Your task to perform on an android device: set the stopwatch Image 0: 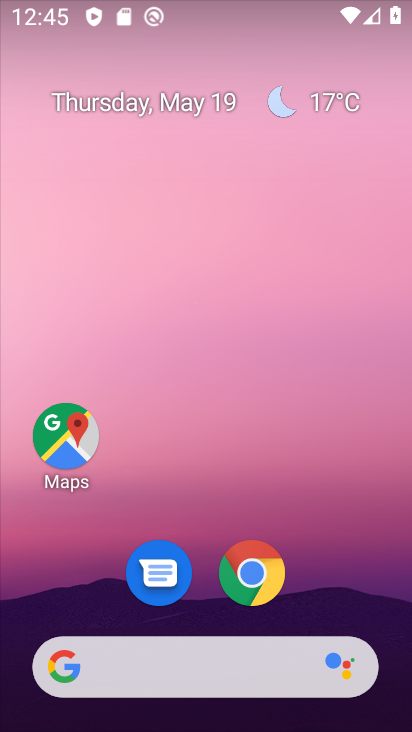
Step 0: drag from (185, 600) to (257, 37)
Your task to perform on an android device: set the stopwatch Image 1: 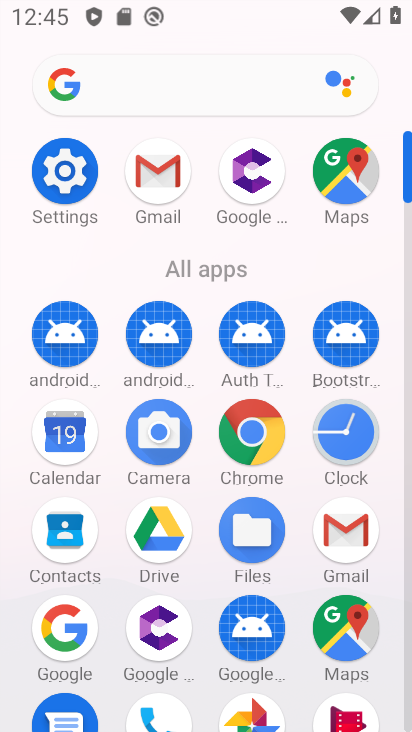
Step 1: click (335, 438)
Your task to perform on an android device: set the stopwatch Image 2: 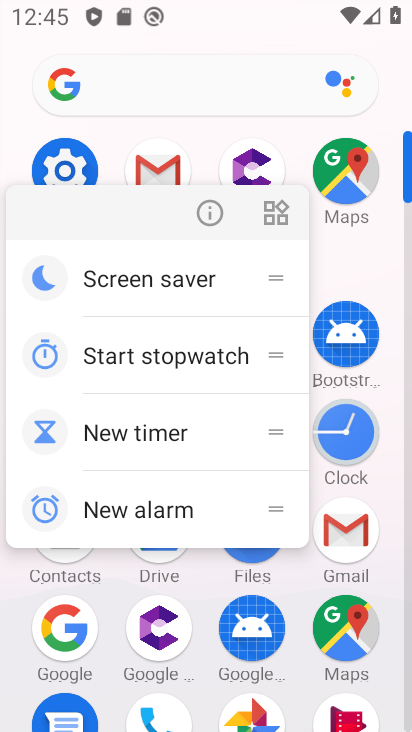
Step 2: click (356, 428)
Your task to perform on an android device: set the stopwatch Image 3: 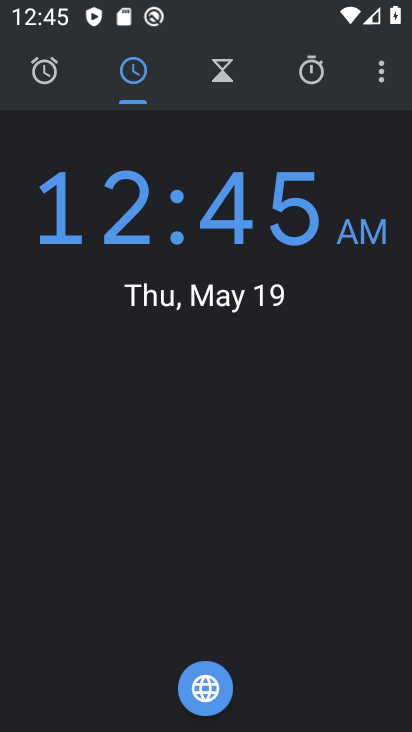
Step 3: click (307, 65)
Your task to perform on an android device: set the stopwatch Image 4: 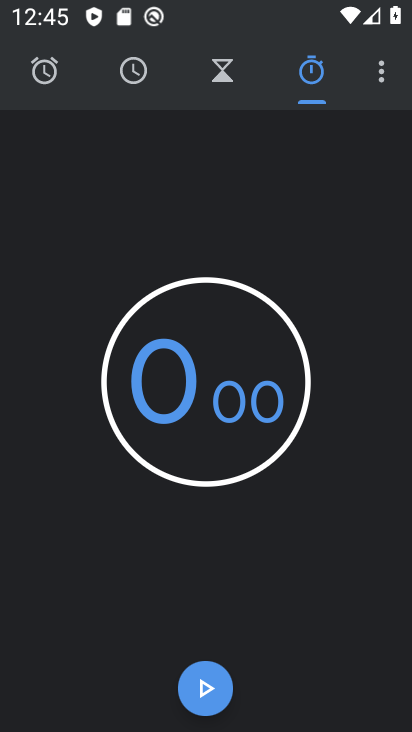
Step 4: click (229, 59)
Your task to perform on an android device: set the stopwatch Image 5: 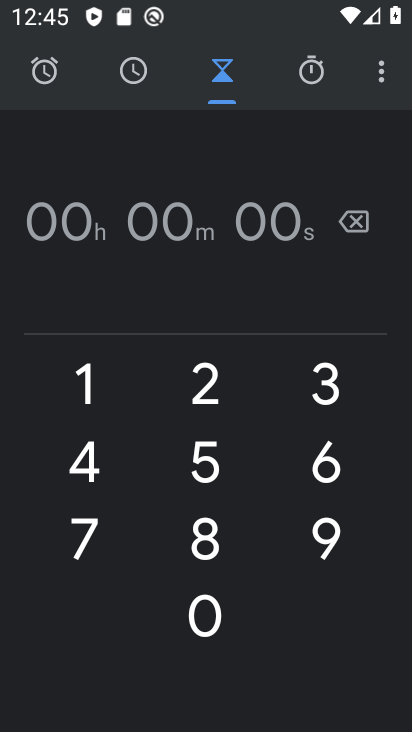
Step 5: click (118, 64)
Your task to perform on an android device: set the stopwatch Image 6: 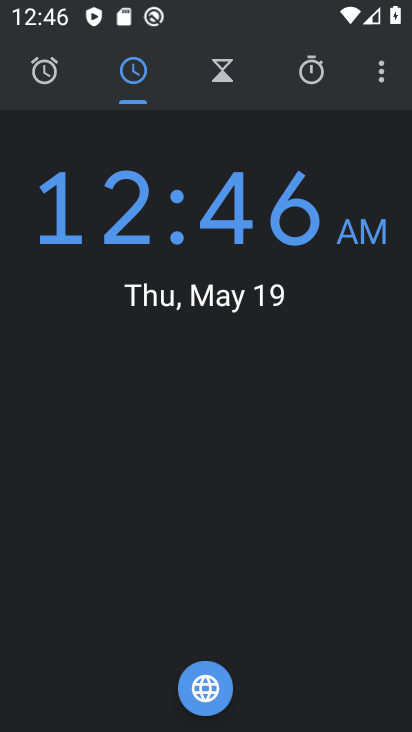
Step 6: click (60, 66)
Your task to perform on an android device: set the stopwatch Image 7: 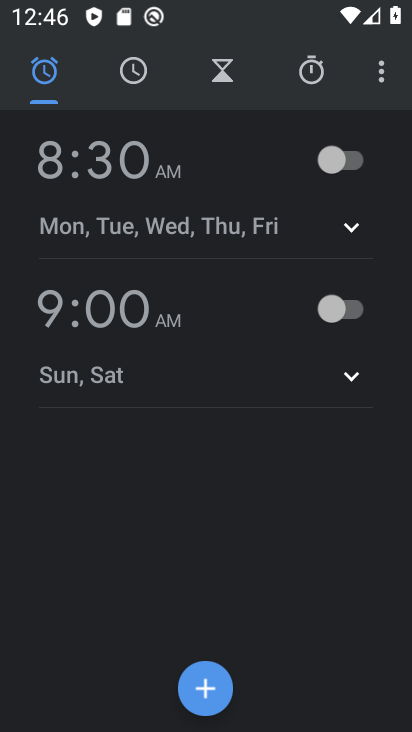
Step 7: click (302, 84)
Your task to perform on an android device: set the stopwatch Image 8: 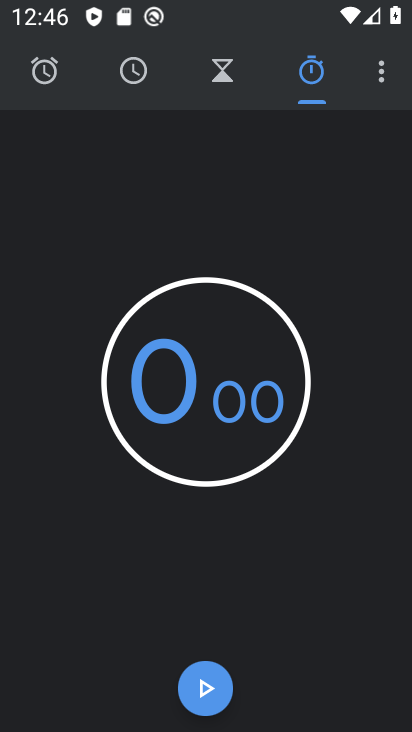
Step 8: click (200, 398)
Your task to perform on an android device: set the stopwatch Image 9: 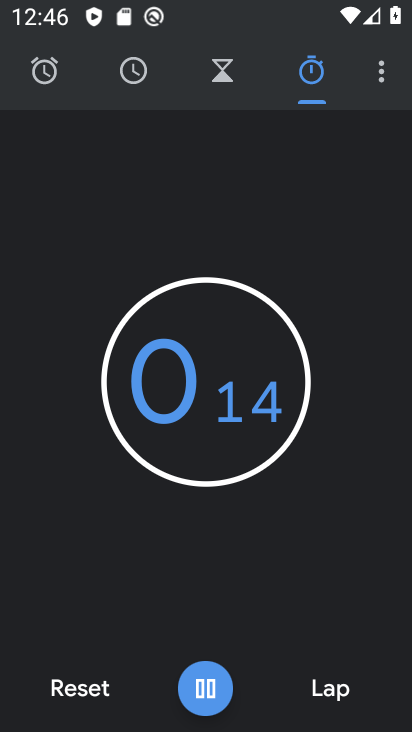
Step 9: click (200, 398)
Your task to perform on an android device: set the stopwatch Image 10: 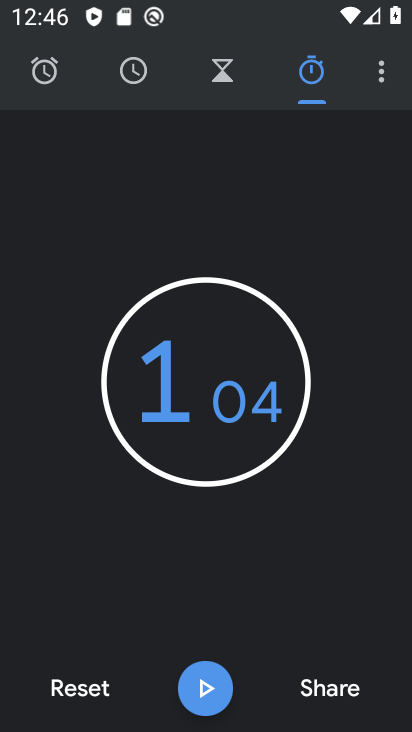
Step 10: task complete